Your task to perform on an android device: Open settings Image 0: 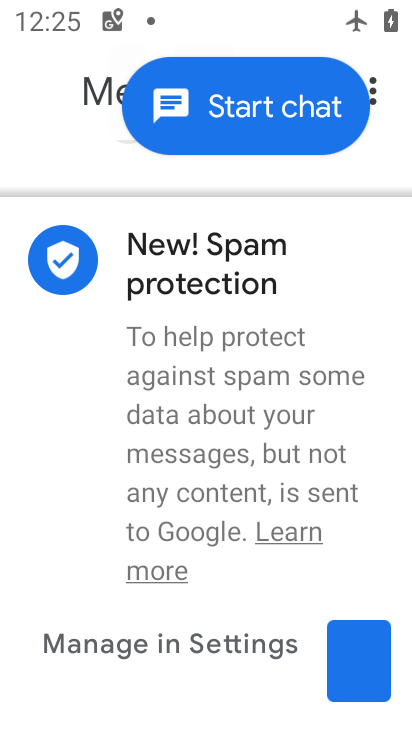
Step 0: press home button
Your task to perform on an android device: Open settings Image 1: 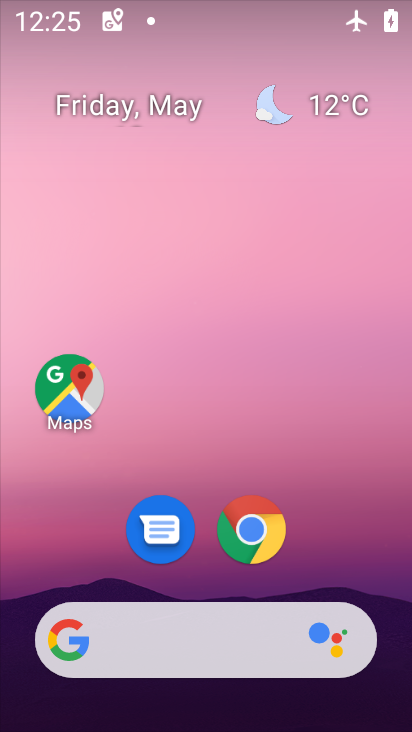
Step 1: drag from (325, 549) to (325, 192)
Your task to perform on an android device: Open settings Image 2: 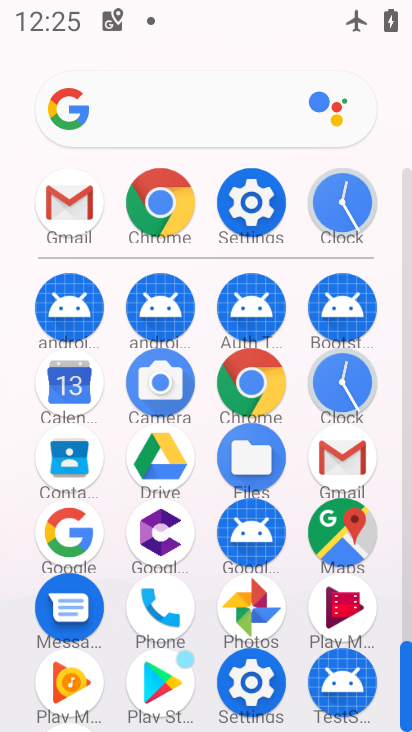
Step 2: click (221, 684)
Your task to perform on an android device: Open settings Image 3: 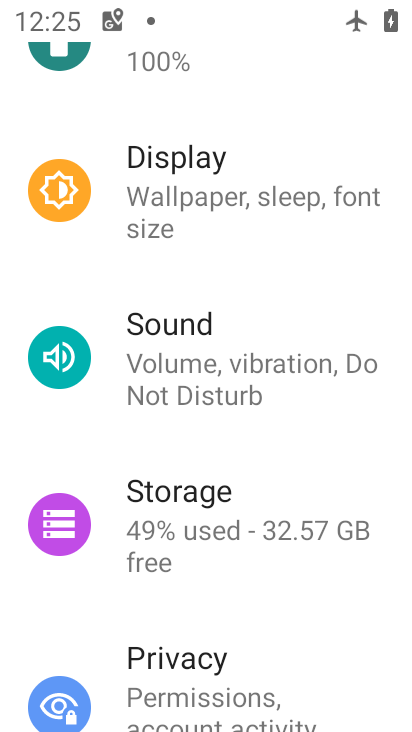
Step 3: task complete